Your task to perform on an android device: Go to Yahoo.com Image 0: 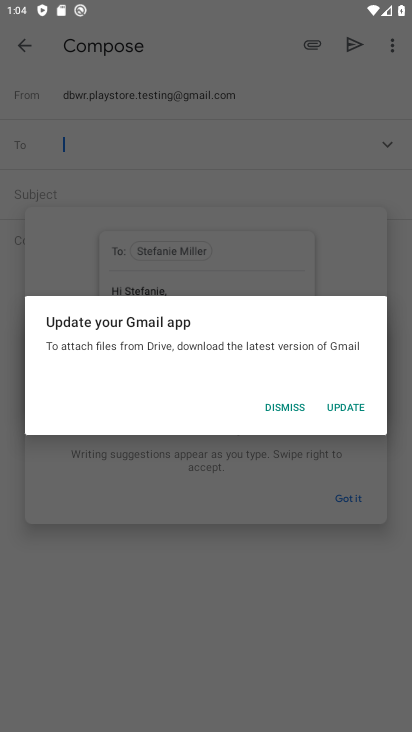
Step 0: press home button
Your task to perform on an android device: Go to Yahoo.com Image 1: 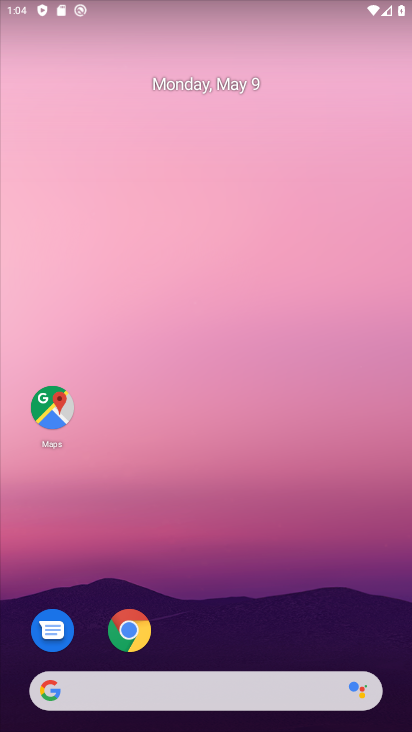
Step 1: drag from (271, 716) to (252, 304)
Your task to perform on an android device: Go to Yahoo.com Image 2: 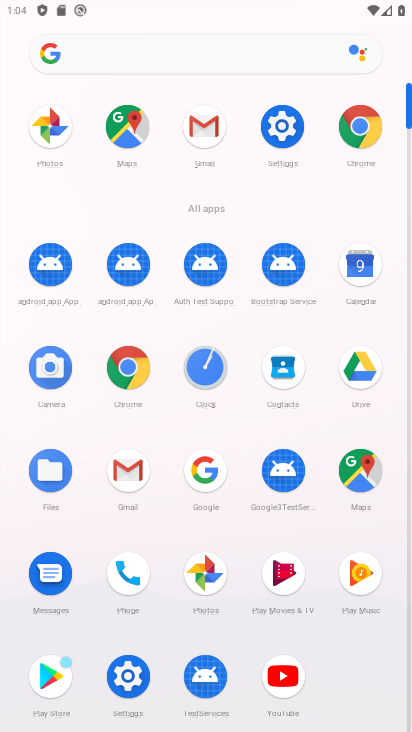
Step 2: click (135, 363)
Your task to perform on an android device: Go to Yahoo.com Image 3: 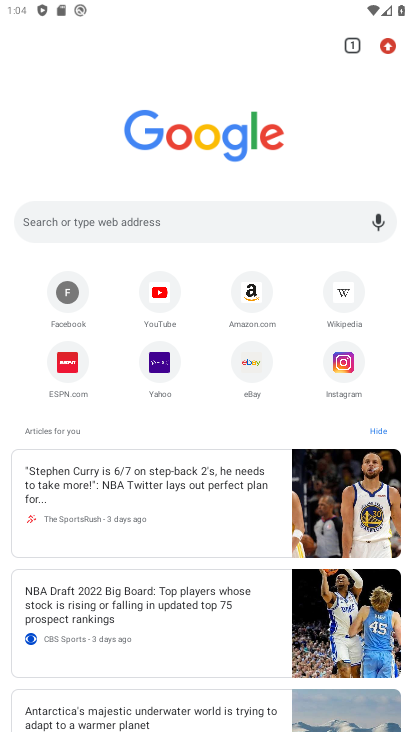
Step 3: click (156, 363)
Your task to perform on an android device: Go to Yahoo.com Image 4: 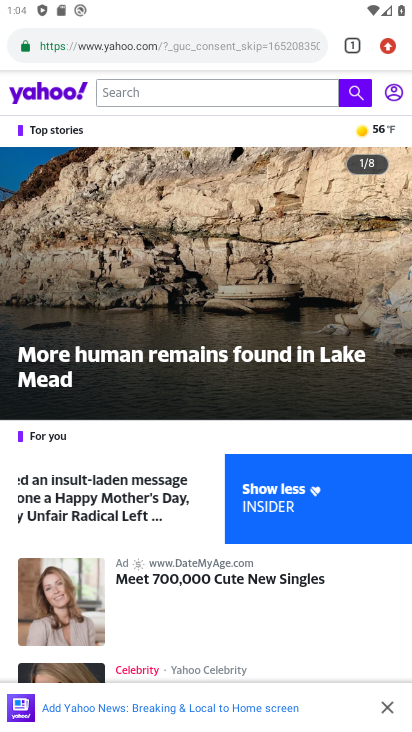
Step 4: task complete